Your task to perform on an android device: Open location settings Image 0: 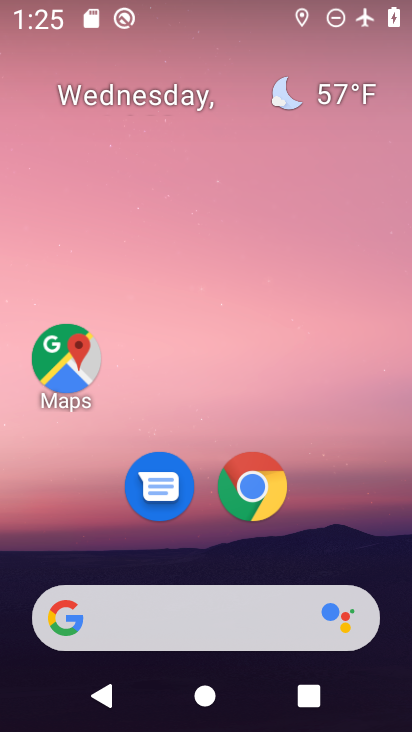
Step 0: drag from (387, 514) to (385, 104)
Your task to perform on an android device: Open location settings Image 1: 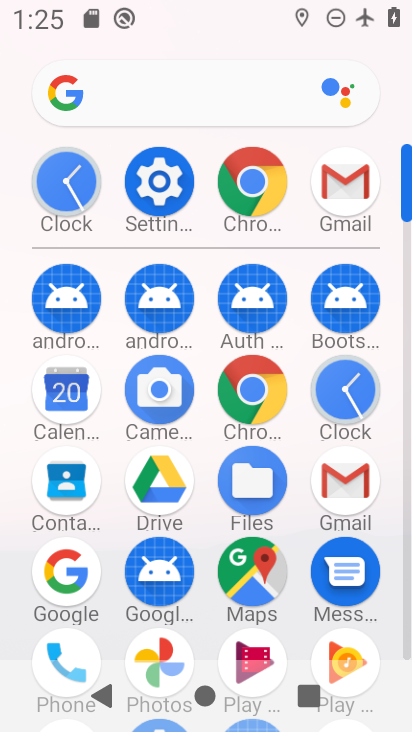
Step 1: click (166, 188)
Your task to perform on an android device: Open location settings Image 2: 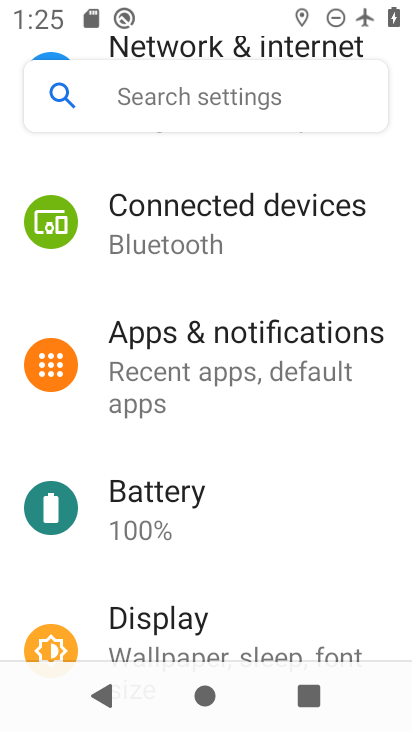
Step 2: drag from (364, 464) to (361, 291)
Your task to perform on an android device: Open location settings Image 3: 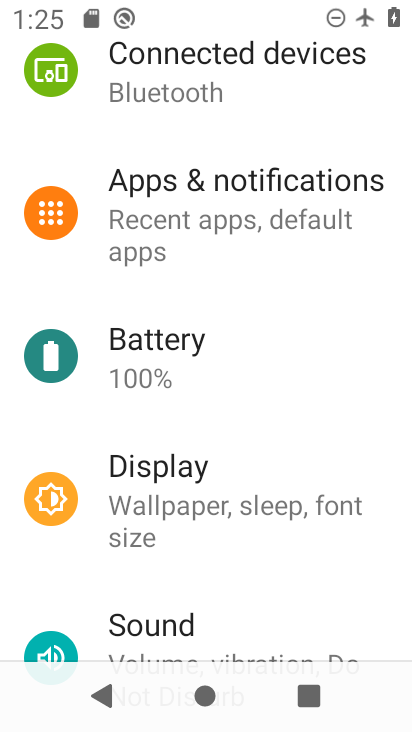
Step 3: drag from (345, 552) to (350, 389)
Your task to perform on an android device: Open location settings Image 4: 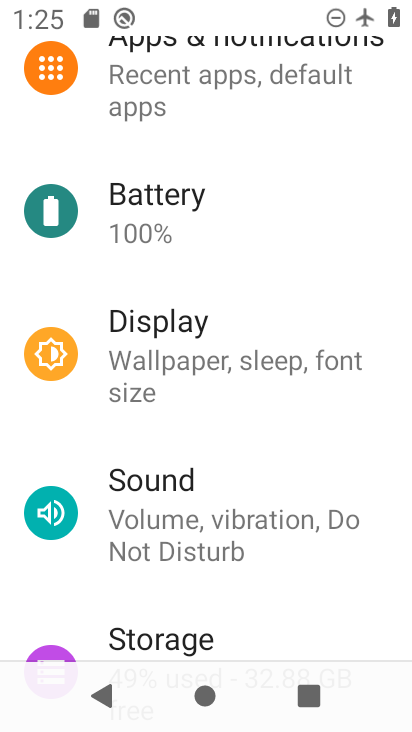
Step 4: drag from (345, 562) to (349, 420)
Your task to perform on an android device: Open location settings Image 5: 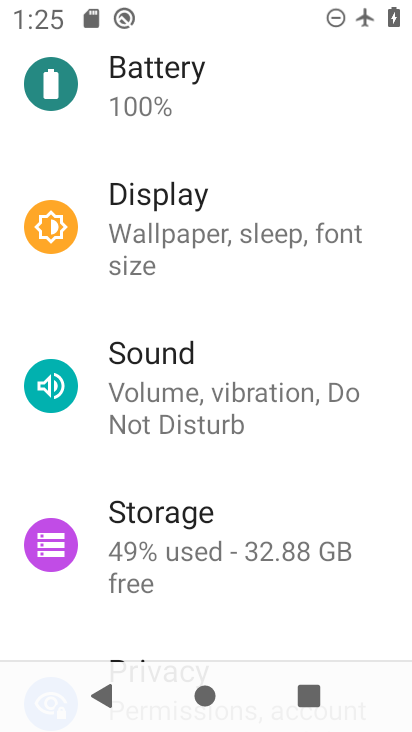
Step 5: drag from (351, 585) to (361, 433)
Your task to perform on an android device: Open location settings Image 6: 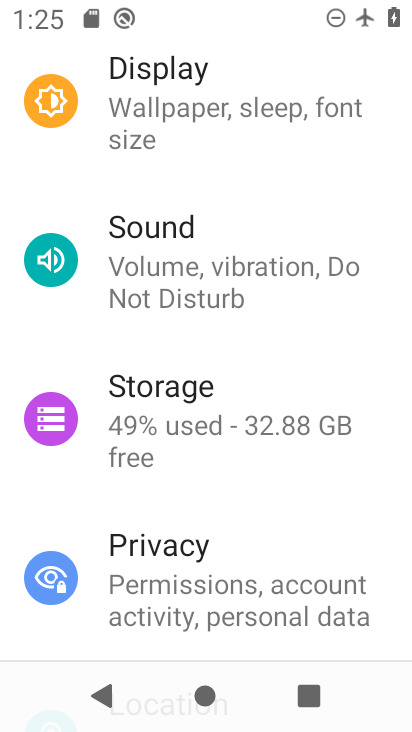
Step 6: drag from (362, 537) to (365, 411)
Your task to perform on an android device: Open location settings Image 7: 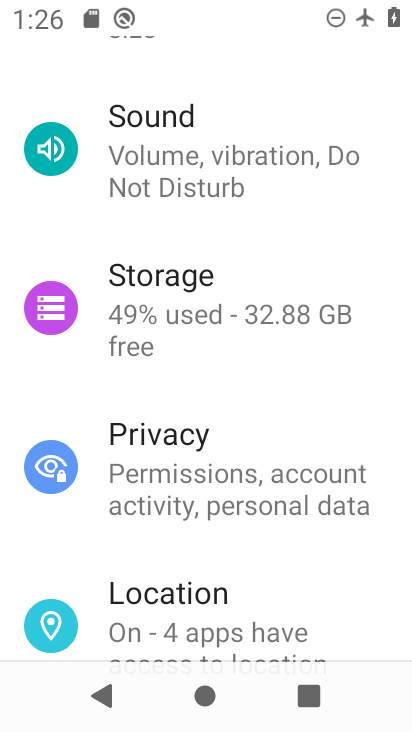
Step 7: drag from (365, 579) to (371, 413)
Your task to perform on an android device: Open location settings Image 8: 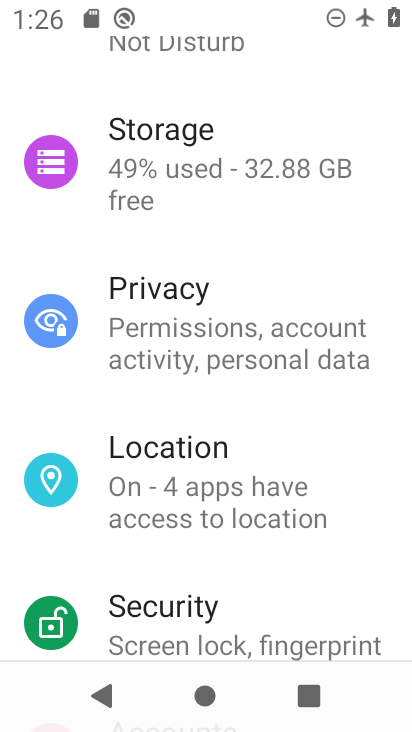
Step 8: drag from (347, 562) to (347, 456)
Your task to perform on an android device: Open location settings Image 9: 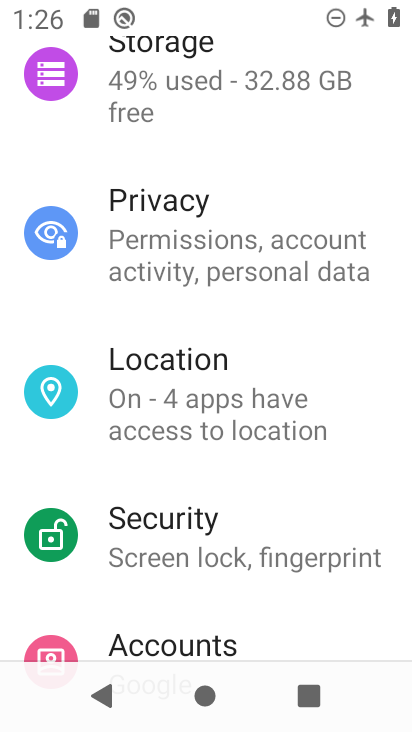
Step 9: click (280, 399)
Your task to perform on an android device: Open location settings Image 10: 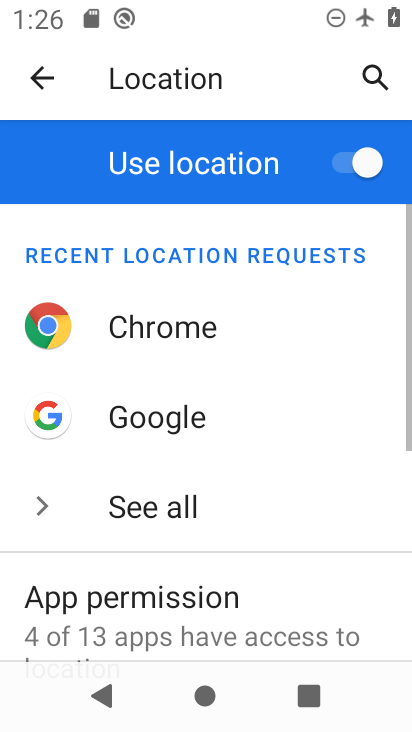
Step 10: task complete